Your task to perform on an android device: Play the new Katy Perry video on YouTube Image 0: 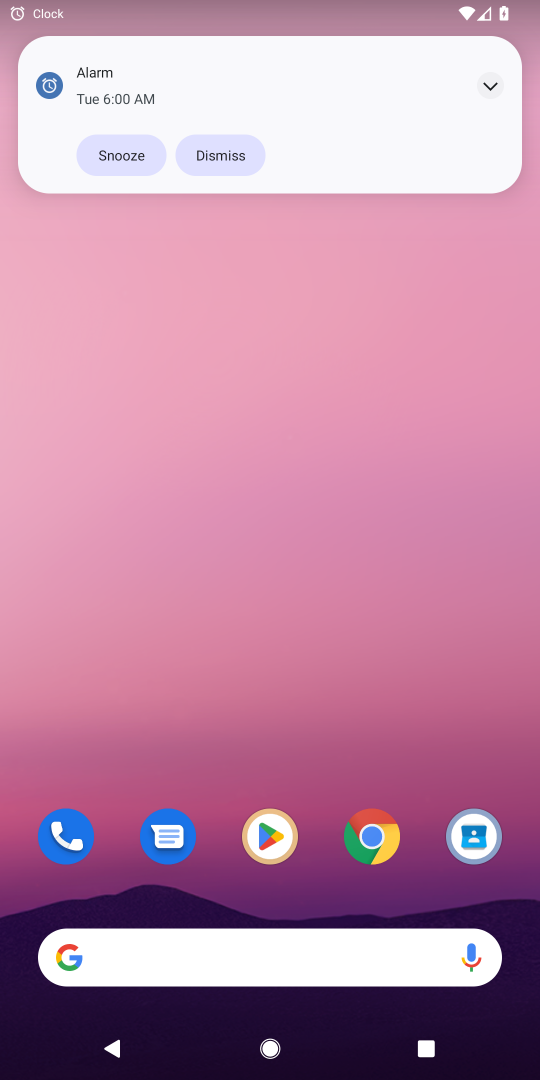
Step 0: click (214, 952)
Your task to perform on an android device: Play the new Katy Perry video on YouTube Image 1: 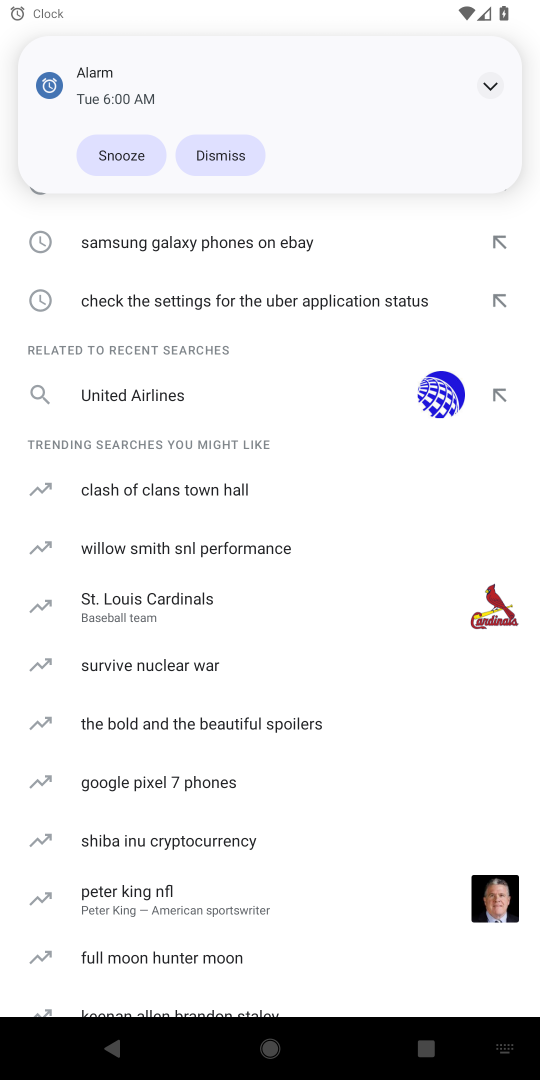
Step 1: type "Play the new Katy Perry video on YouTube"
Your task to perform on an android device: Play the new Katy Perry video on YouTube Image 2: 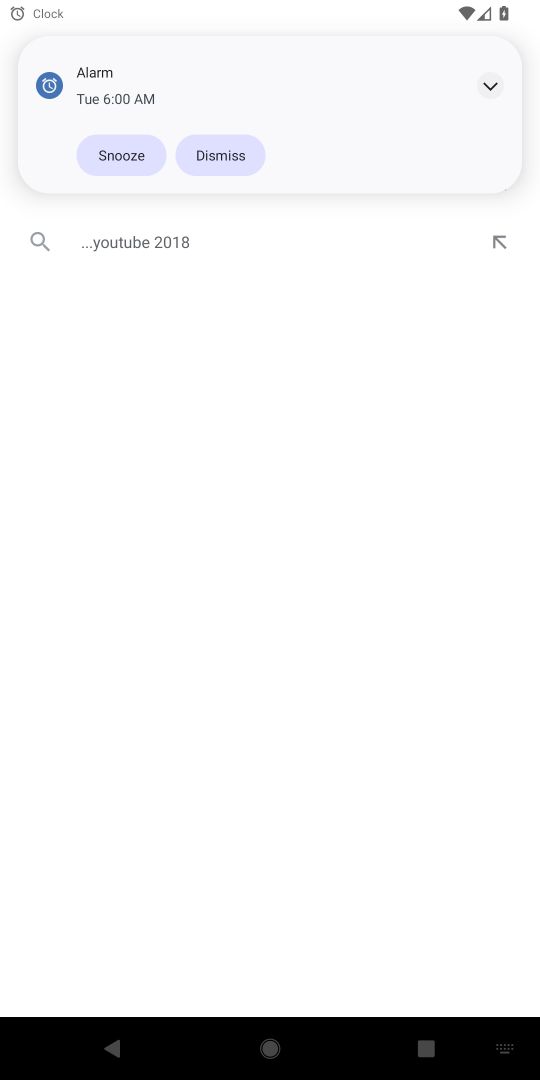
Step 2: task complete